Your task to perform on an android device: install app "Firefox Browser" Image 0: 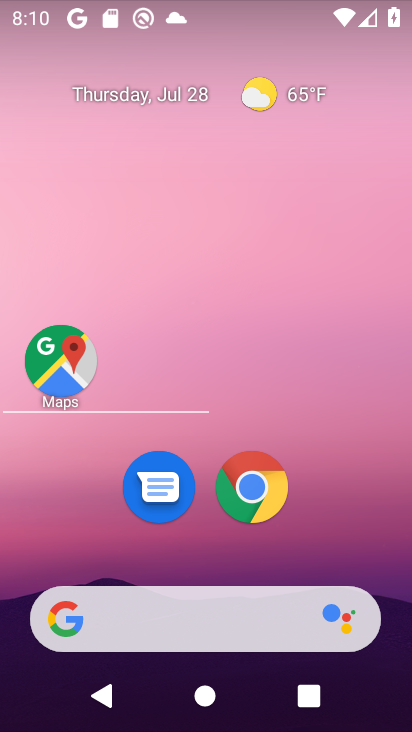
Step 0: click (129, 104)
Your task to perform on an android device: install app "Firefox Browser" Image 1: 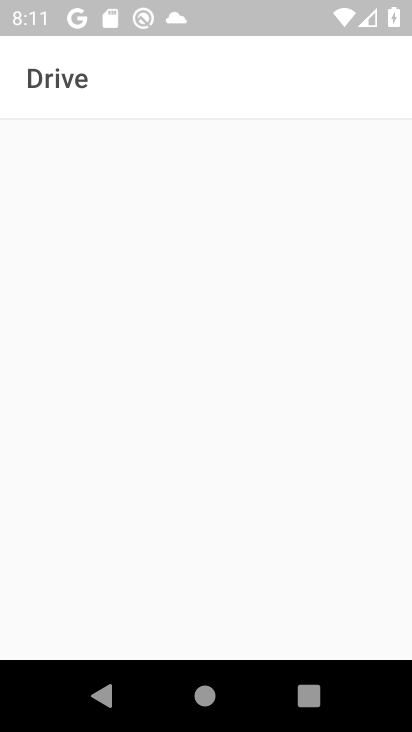
Step 1: press back button
Your task to perform on an android device: install app "Firefox Browser" Image 2: 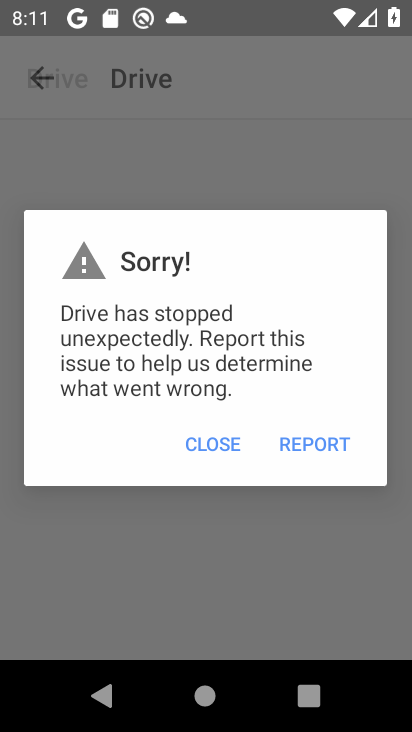
Step 2: press back button
Your task to perform on an android device: install app "Firefox Browser" Image 3: 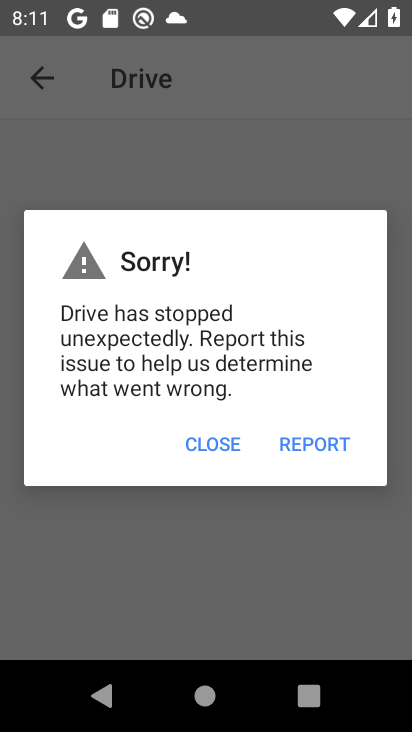
Step 3: press home button
Your task to perform on an android device: install app "Firefox Browser" Image 4: 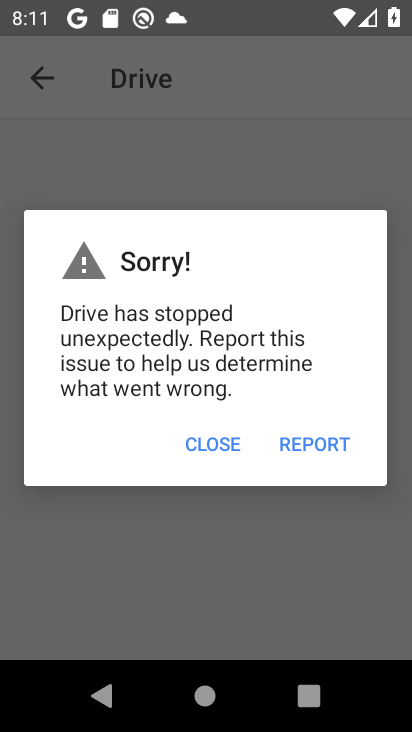
Step 4: press back button
Your task to perform on an android device: install app "Firefox Browser" Image 5: 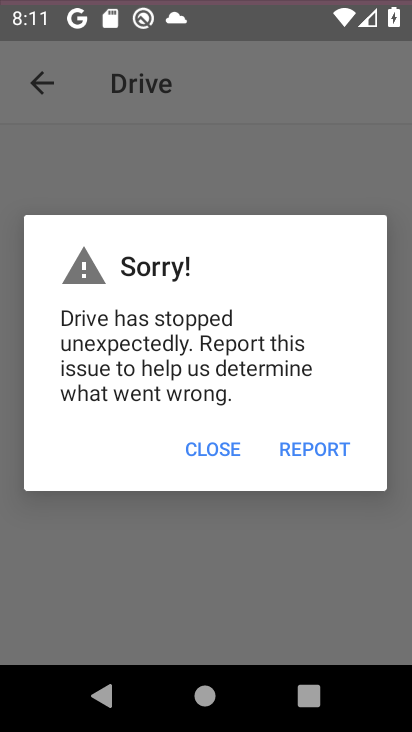
Step 5: click (204, 436)
Your task to perform on an android device: install app "Firefox Browser" Image 6: 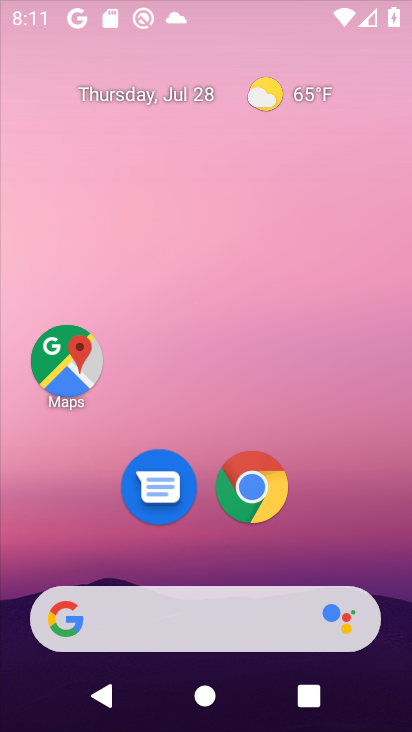
Step 6: click (209, 440)
Your task to perform on an android device: install app "Firefox Browser" Image 7: 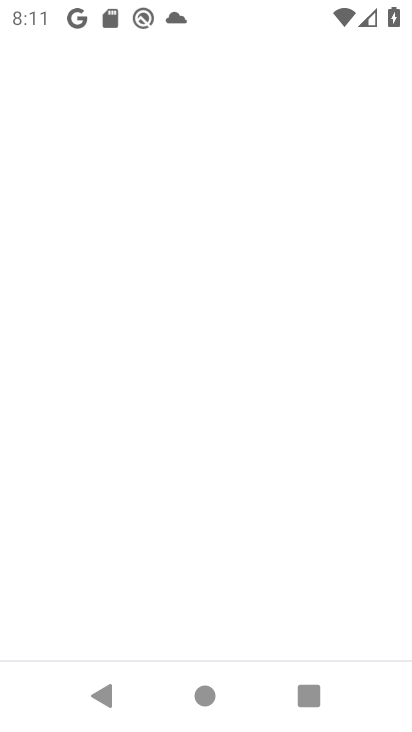
Step 7: press back button
Your task to perform on an android device: install app "Firefox Browser" Image 8: 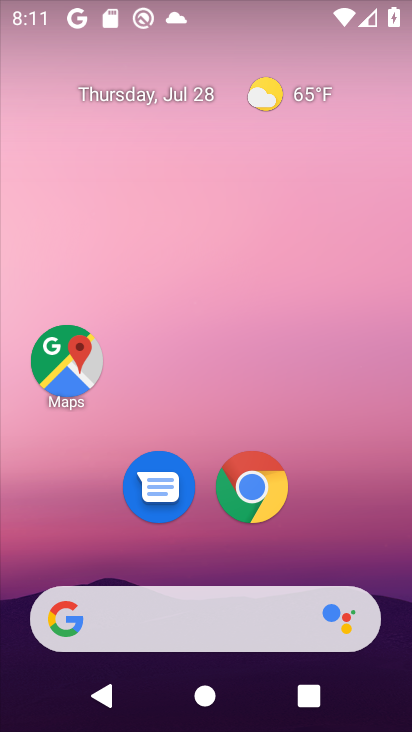
Step 8: drag from (277, 637) to (228, 163)
Your task to perform on an android device: install app "Firefox Browser" Image 9: 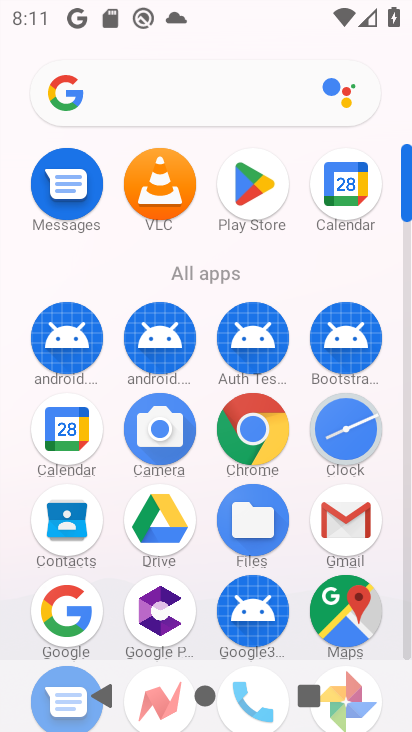
Step 9: drag from (248, 465) to (209, 237)
Your task to perform on an android device: install app "Firefox Browser" Image 10: 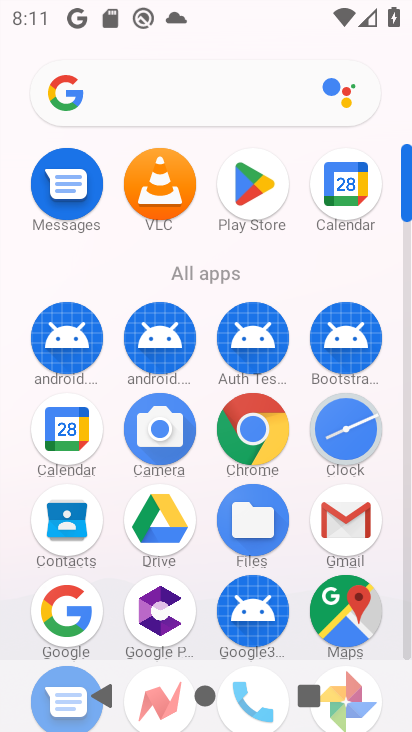
Step 10: click (248, 184)
Your task to perform on an android device: install app "Firefox Browser" Image 11: 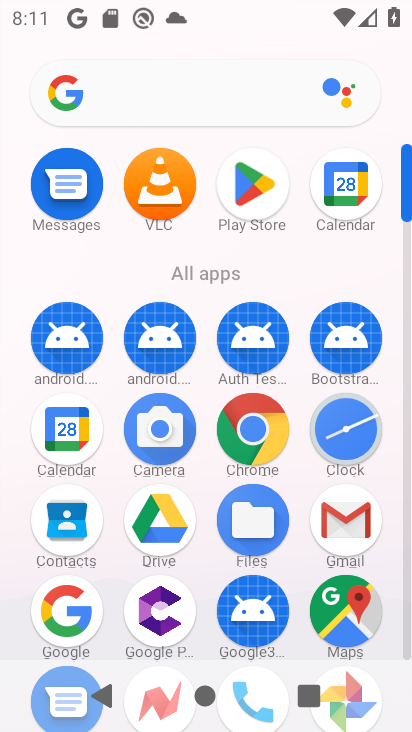
Step 11: click (248, 184)
Your task to perform on an android device: install app "Firefox Browser" Image 12: 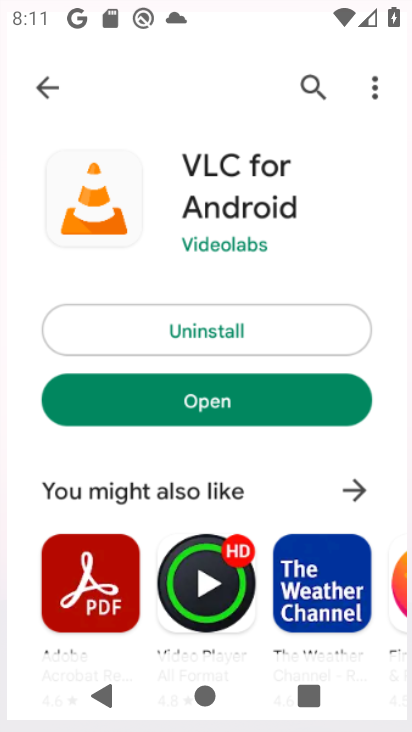
Step 12: click (252, 184)
Your task to perform on an android device: install app "Firefox Browser" Image 13: 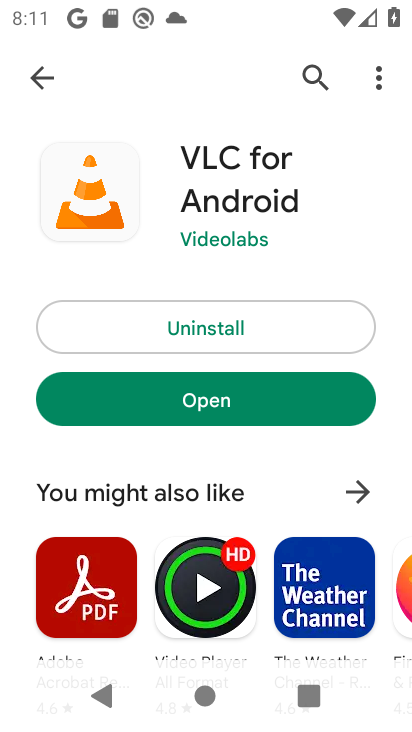
Step 13: click (253, 184)
Your task to perform on an android device: install app "Firefox Browser" Image 14: 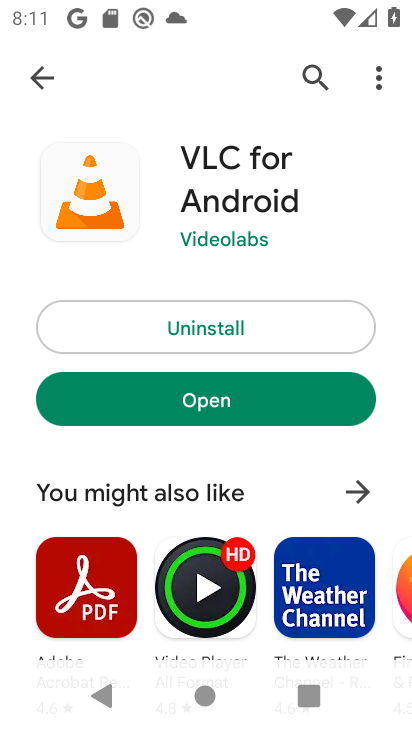
Step 14: click (37, 84)
Your task to perform on an android device: install app "Firefox Browser" Image 15: 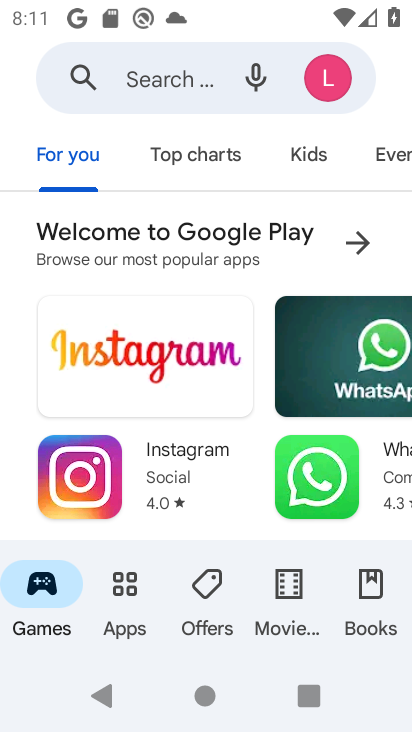
Step 15: click (128, 79)
Your task to perform on an android device: install app "Firefox Browser" Image 16: 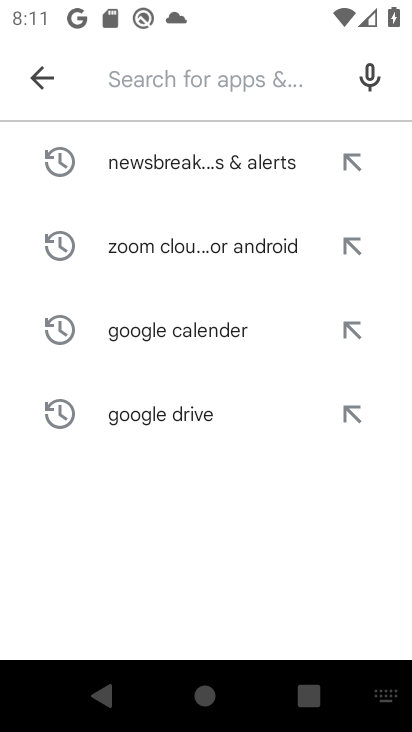
Step 16: type "Firefox Browser"
Your task to perform on an android device: install app "Firefox Browser" Image 17: 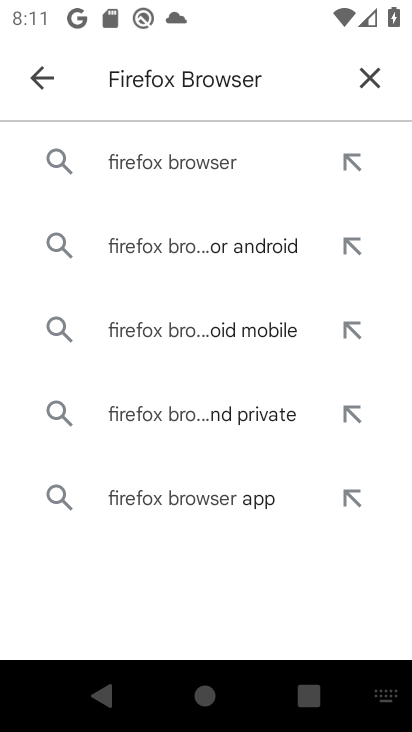
Step 17: click (183, 161)
Your task to perform on an android device: install app "Firefox Browser" Image 18: 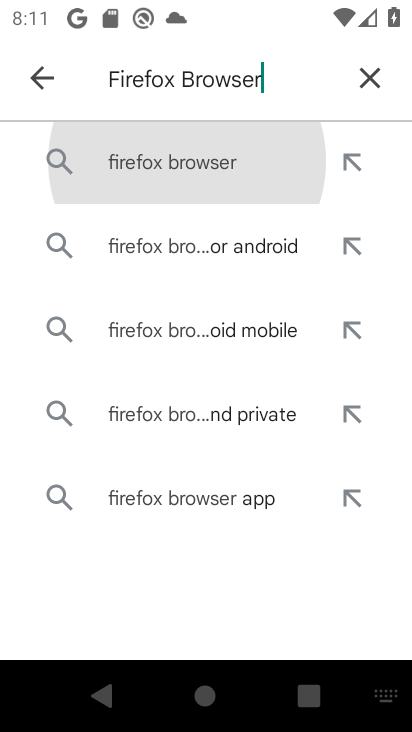
Step 18: click (183, 161)
Your task to perform on an android device: install app "Firefox Browser" Image 19: 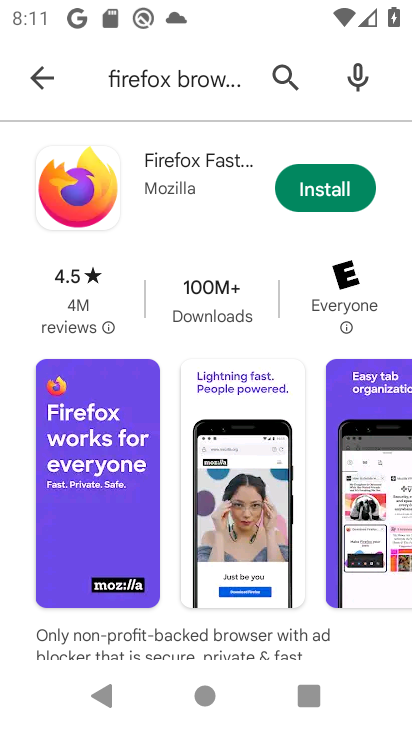
Step 19: click (329, 190)
Your task to perform on an android device: install app "Firefox Browser" Image 20: 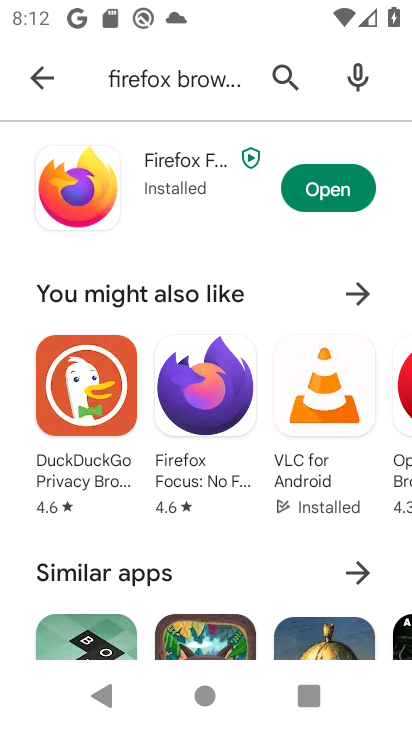
Step 20: click (329, 187)
Your task to perform on an android device: install app "Firefox Browser" Image 21: 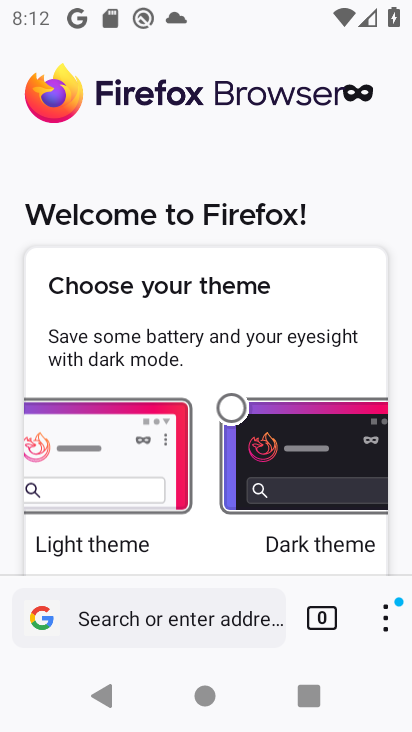
Step 21: task complete